Your task to perform on an android device: visit the assistant section in the google photos Image 0: 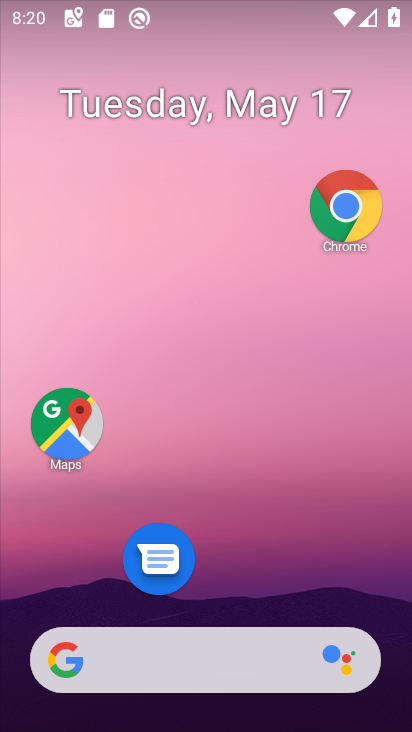
Step 0: drag from (219, 646) to (261, 108)
Your task to perform on an android device: visit the assistant section in the google photos Image 1: 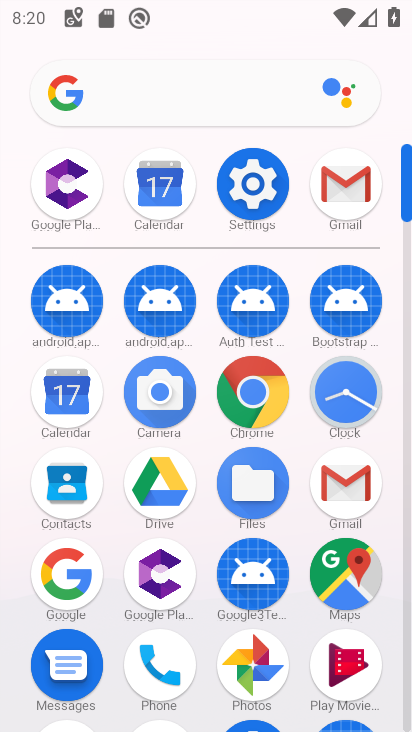
Step 1: click (251, 670)
Your task to perform on an android device: visit the assistant section in the google photos Image 2: 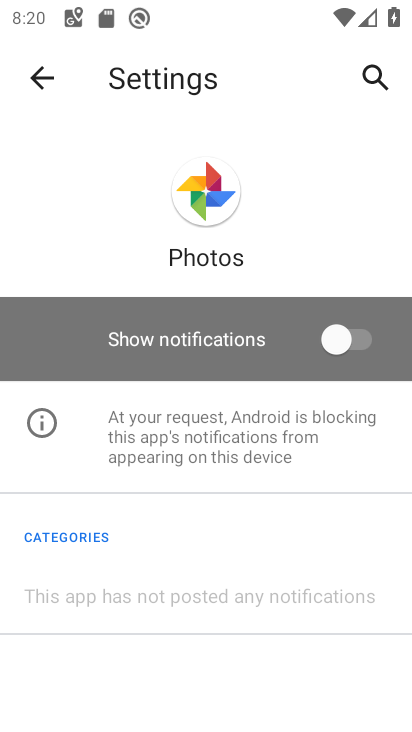
Step 2: click (50, 87)
Your task to perform on an android device: visit the assistant section in the google photos Image 3: 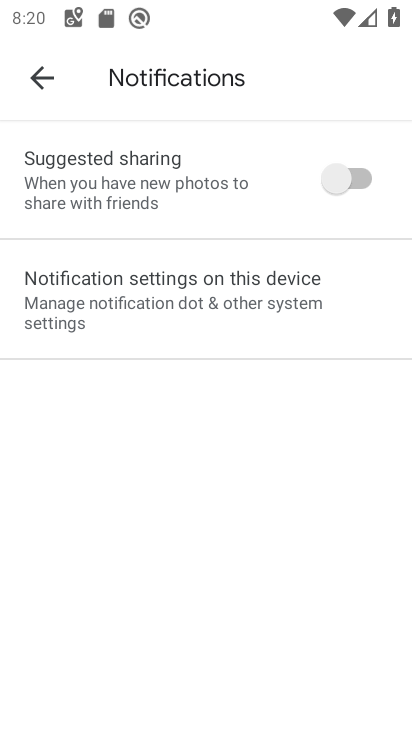
Step 3: click (43, 92)
Your task to perform on an android device: visit the assistant section in the google photos Image 4: 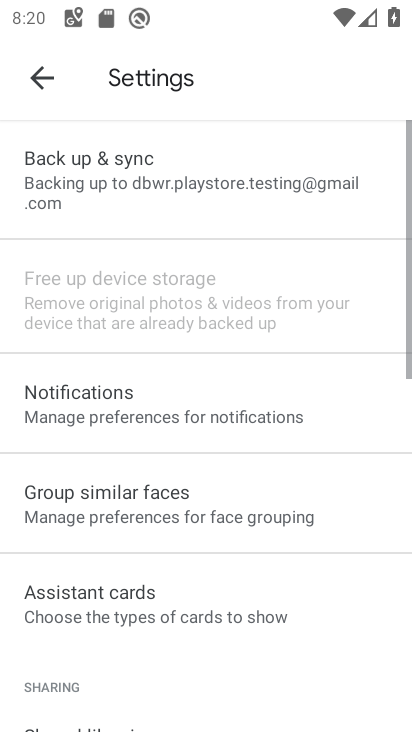
Step 4: click (42, 92)
Your task to perform on an android device: visit the assistant section in the google photos Image 5: 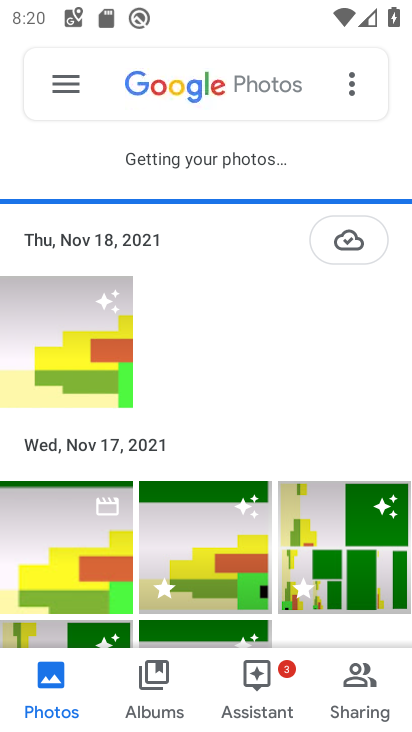
Step 5: click (293, 724)
Your task to perform on an android device: visit the assistant section in the google photos Image 6: 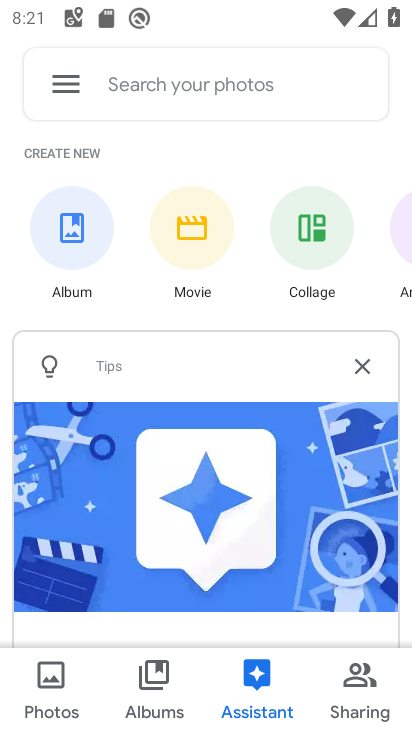
Step 6: task complete